Your task to perform on an android device: see creations saved in the google photos Image 0: 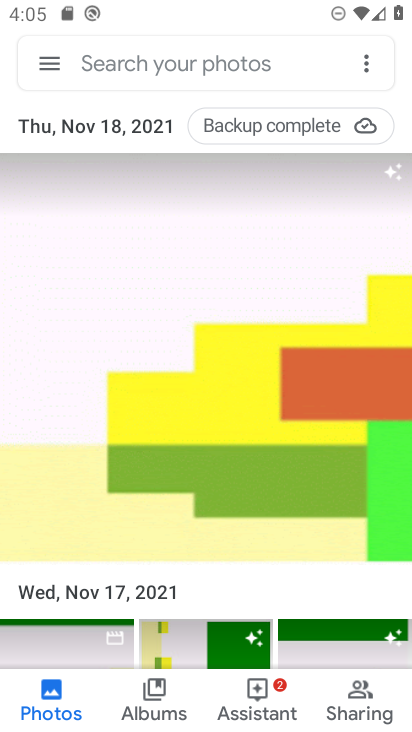
Step 0: press back button
Your task to perform on an android device: see creations saved in the google photos Image 1: 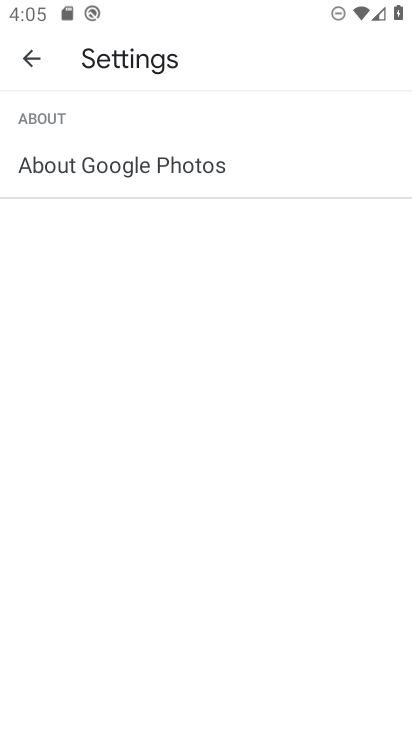
Step 1: press home button
Your task to perform on an android device: see creations saved in the google photos Image 2: 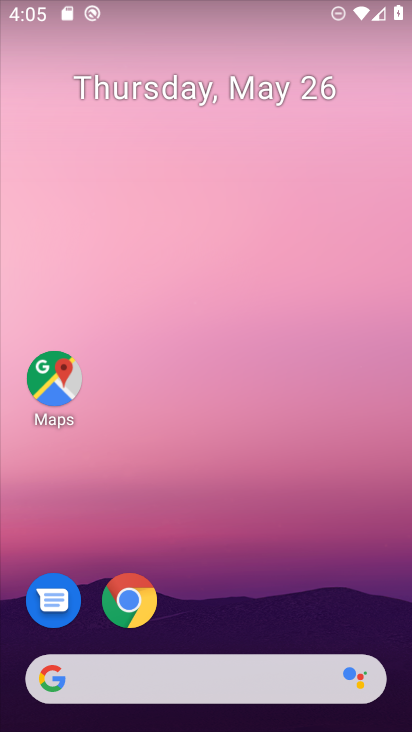
Step 2: drag from (284, 566) to (261, 26)
Your task to perform on an android device: see creations saved in the google photos Image 3: 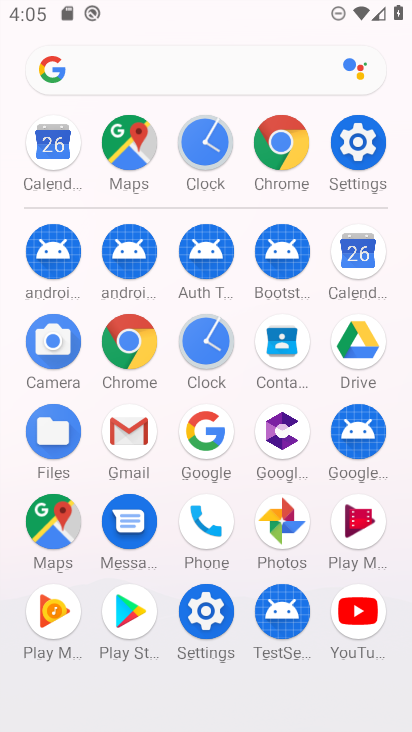
Step 3: click (280, 515)
Your task to perform on an android device: see creations saved in the google photos Image 4: 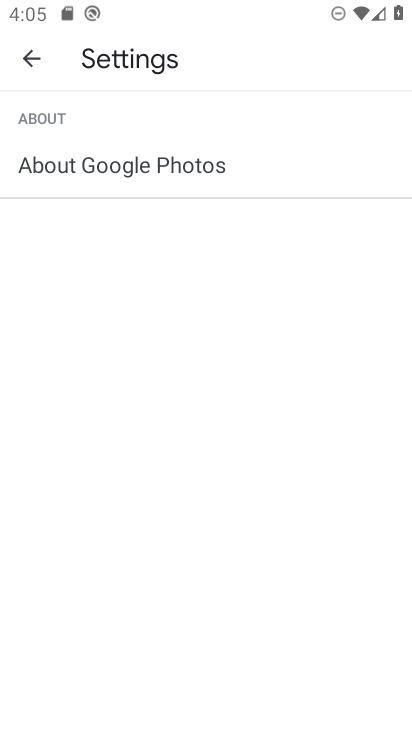
Step 4: click (39, 65)
Your task to perform on an android device: see creations saved in the google photos Image 5: 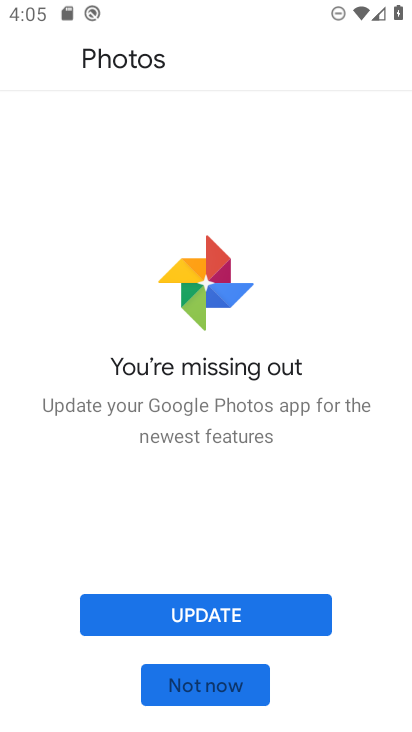
Step 5: click (264, 601)
Your task to perform on an android device: see creations saved in the google photos Image 6: 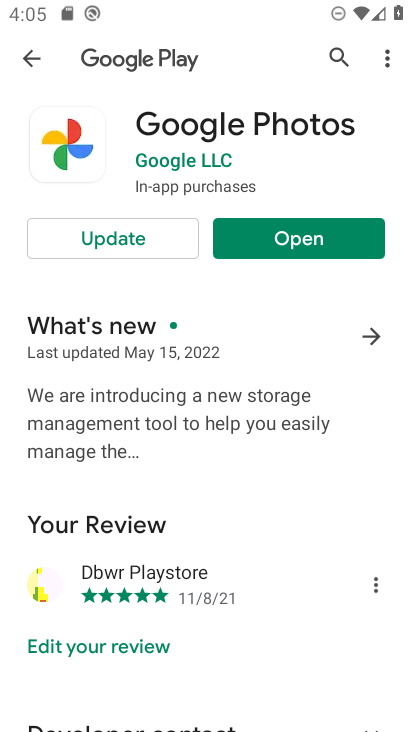
Step 6: click (159, 244)
Your task to perform on an android device: see creations saved in the google photos Image 7: 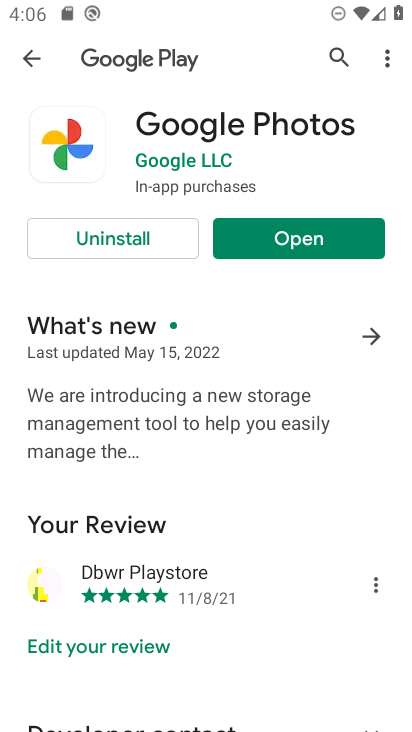
Step 7: click (269, 229)
Your task to perform on an android device: see creations saved in the google photos Image 8: 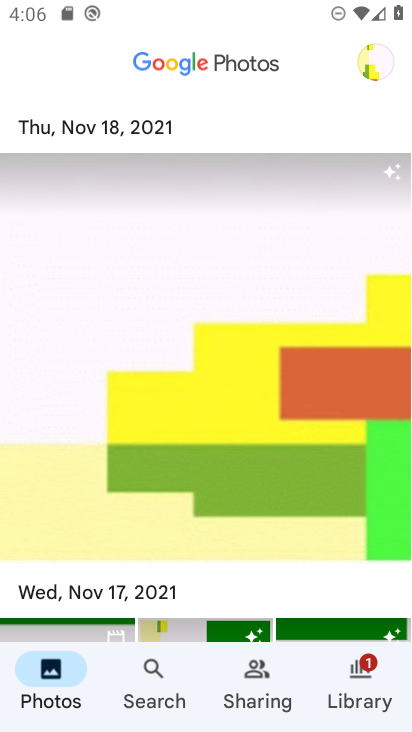
Step 8: task complete